Your task to perform on an android device: Open wifi settings Image 0: 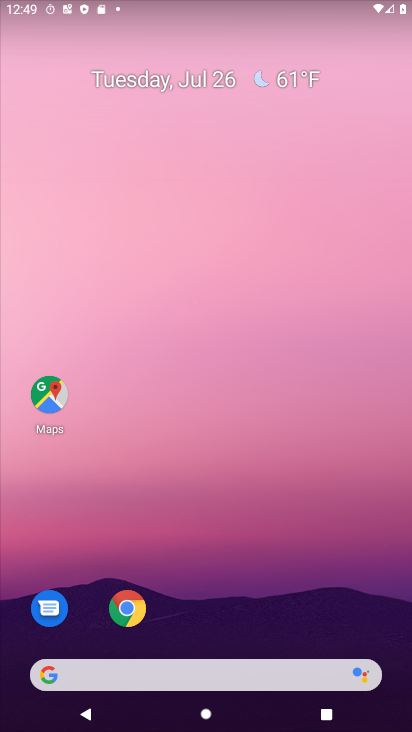
Step 0: drag from (356, 617) to (355, 155)
Your task to perform on an android device: Open wifi settings Image 1: 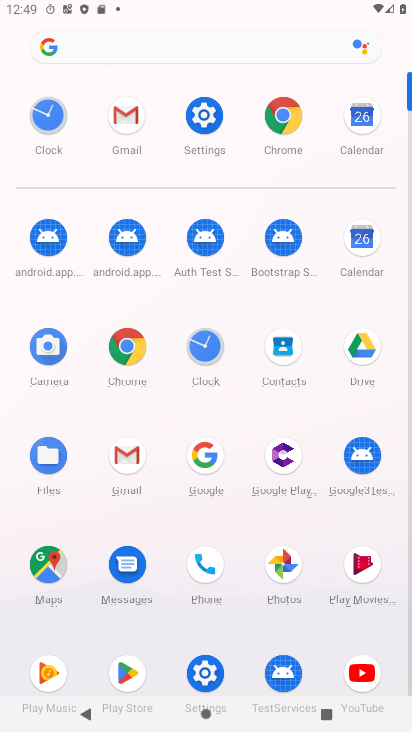
Step 1: click (210, 112)
Your task to perform on an android device: Open wifi settings Image 2: 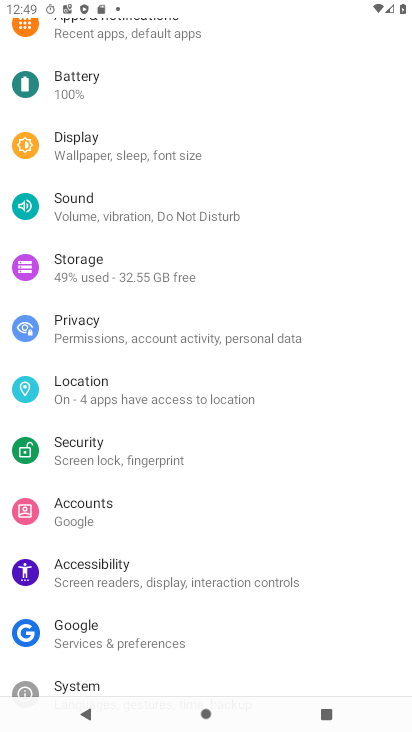
Step 2: drag from (347, 461) to (342, 361)
Your task to perform on an android device: Open wifi settings Image 3: 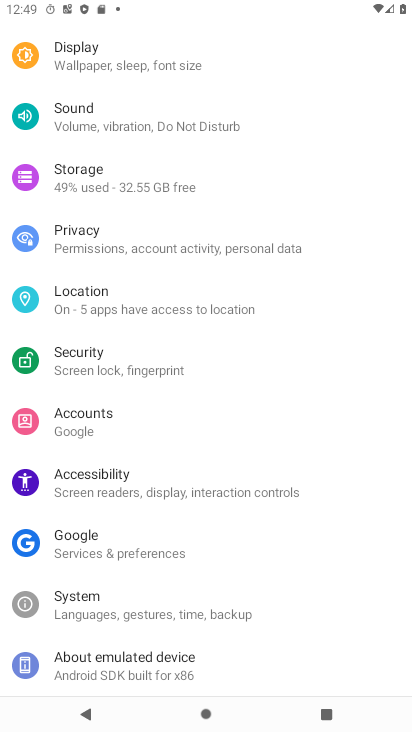
Step 3: drag from (331, 574) to (341, 490)
Your task to perform on an android device: Open wifi settings Image 4: 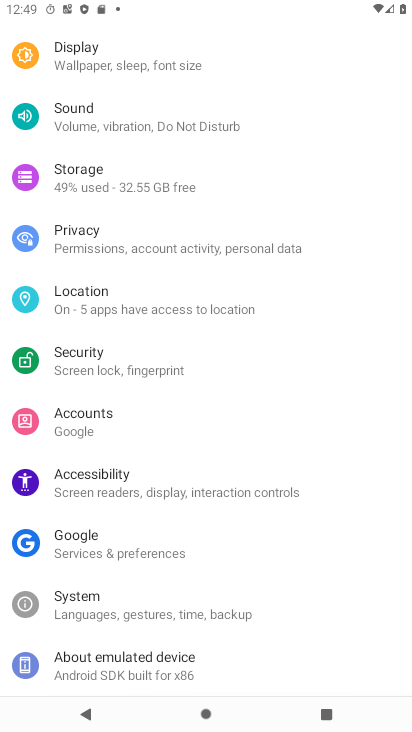
Step 4: drag from (347, 350) to (344, 431)
Your task to perform on an android device: Open wifi settings Image 5: 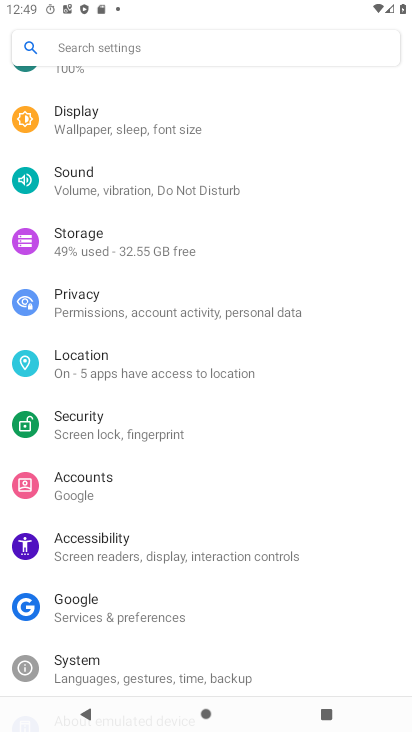
Step 5: drag from (347, 343) to (348, 428)
Your task to perform on an android device: Open wifi settings Image 6: 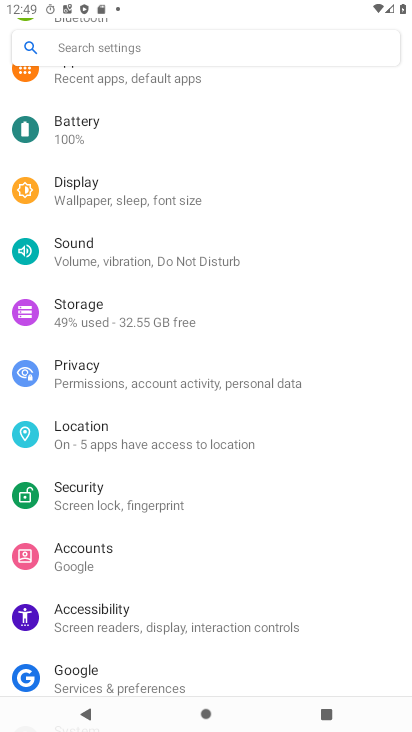
Step 6: drag from (348, 267) to (342, 357)
Your task to perform on an android device: Open wifi settings Image 7: 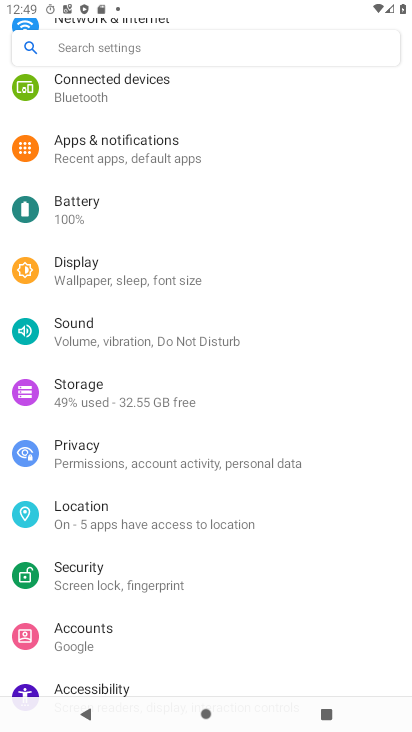
Step 7: drag from (347, 245) to (340, 372)
Your task to perform on an android device: Open wifi settings Image 8: 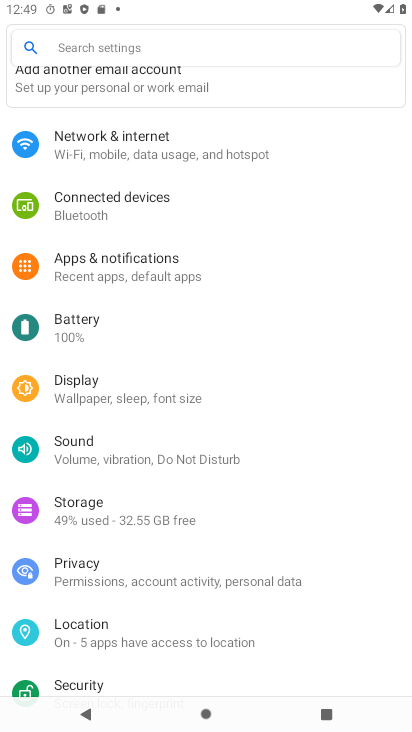
Step 8: drag from (337, 235) to (333, 359)
Your task to perform on an android device: Open wifi settings Image 9: 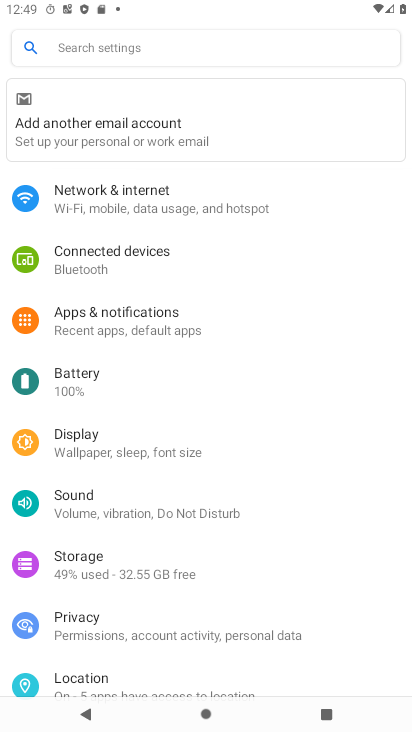
Step 9: click (294, 212)
Your task to perform on an android device: Open wifi settings Image 10: 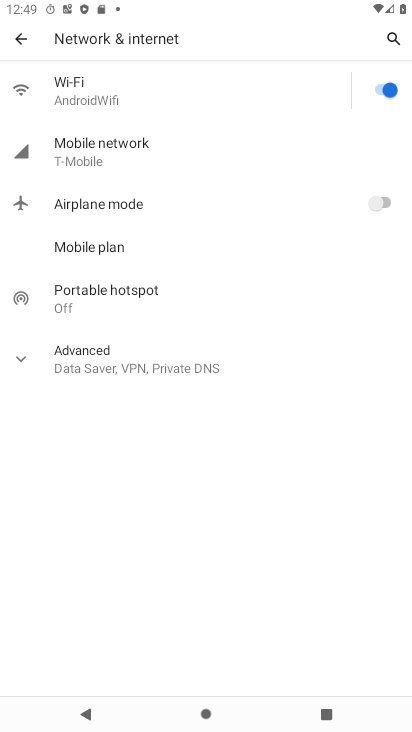
Step 10: click (158, 88)
Your task to perform on an android device: Open wifi settings Image 11: 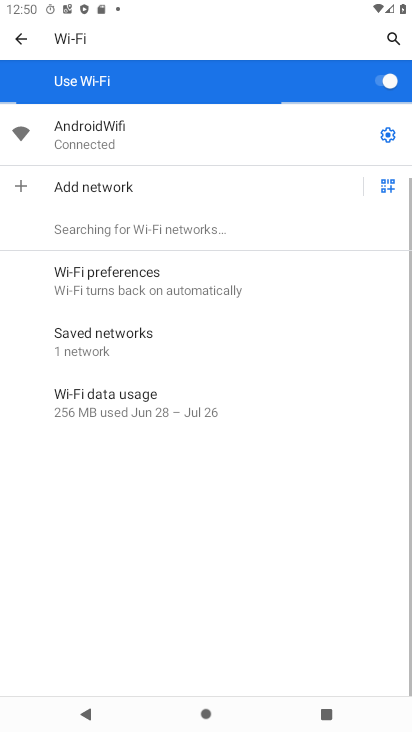
Step 11: task complete